Your task to perform on an android device: see tabs open on other devices in the chrome app Image 0: 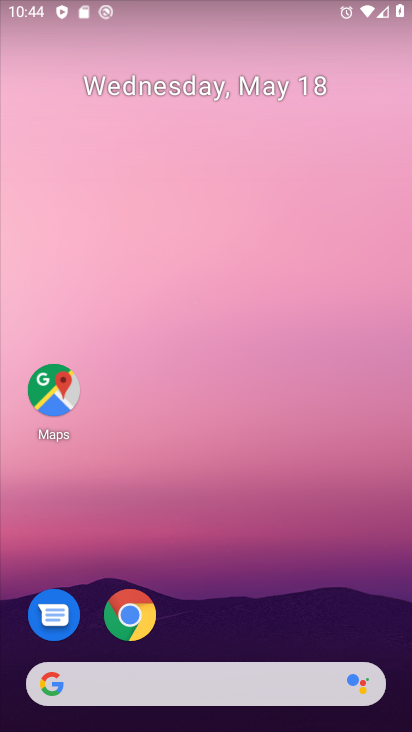
Step 0: click (197, 258)
Your task to perform on an android device: see tabs open on other devices in the chrome app Image 1: 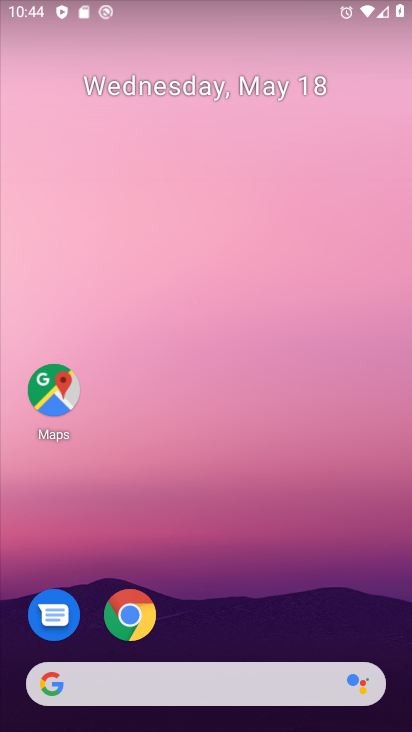
Step 1: click (130, 614)
Your task to perform on an android device: see tabs open on other devices in the chrome app Image 2: 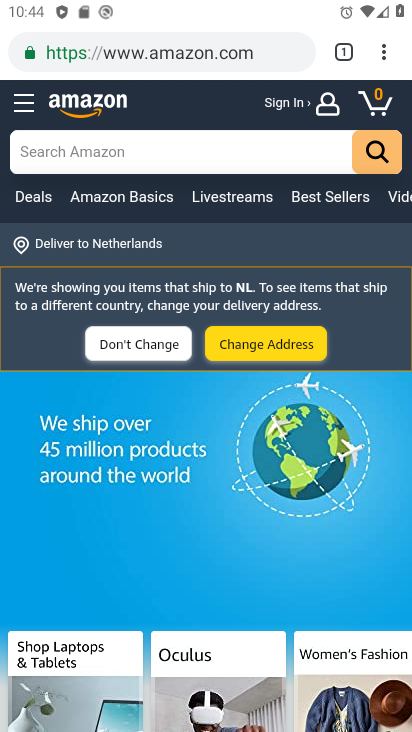
Step 2: click (384, 53)
Your task to perform on an android device: see tabs open on other devices in the chrome app Image 3: 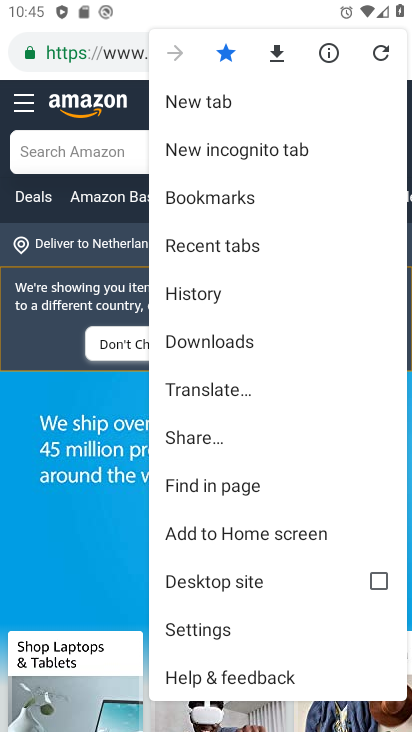
Step 3: click (40, 440)
Your task to perform on an android device: see tabs open on other devices in the chrome app Image 4: 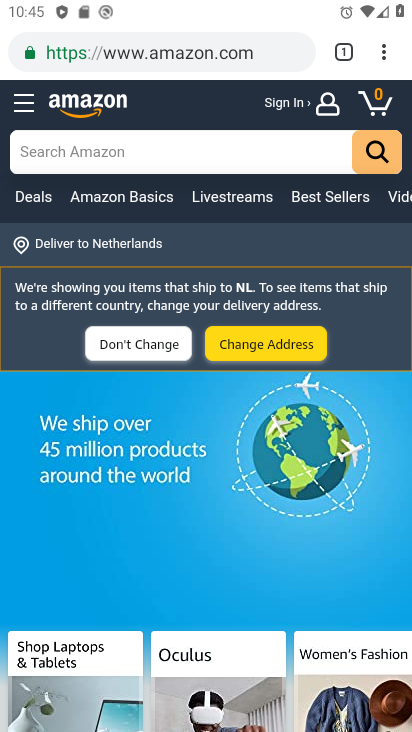
Step 4: click (352, 51)
Your task to perform on an android device: see tabs open on other devices in the chrome app Image 5: 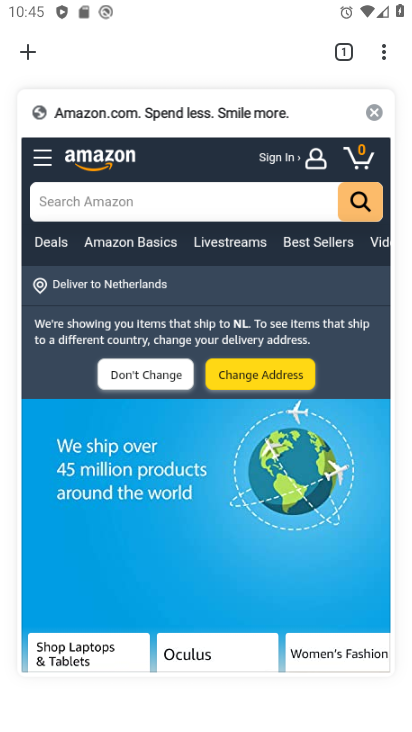
Step 5: task complete